Your task to perform on an android device: Open Youtube and go to the subscriptions tab Image 0: 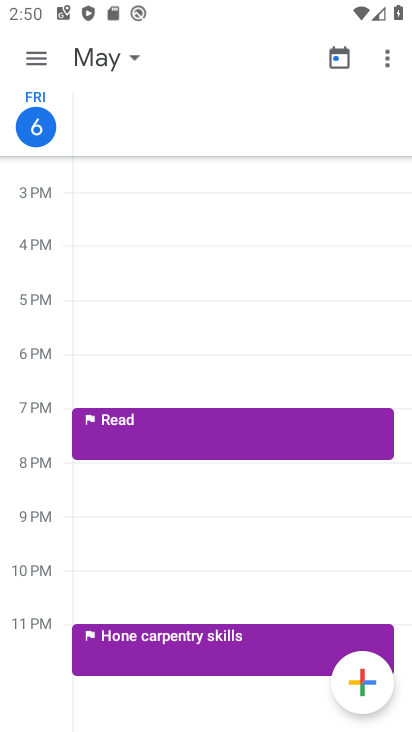
Step 0: press back button
Your task to perform on an android device: Open Youtube and go to the subscriptions tab Image 1: 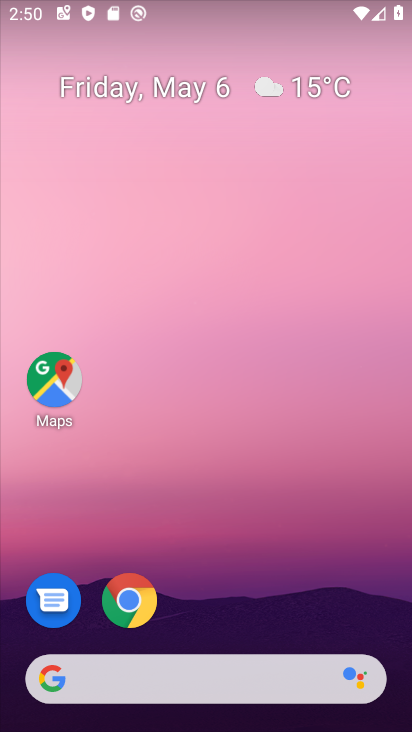
Step 1: drag from (258, 586) to (223, 10)
Your task to perform on an android device: Open Youtube and go to the subscriptions tab Image 2: 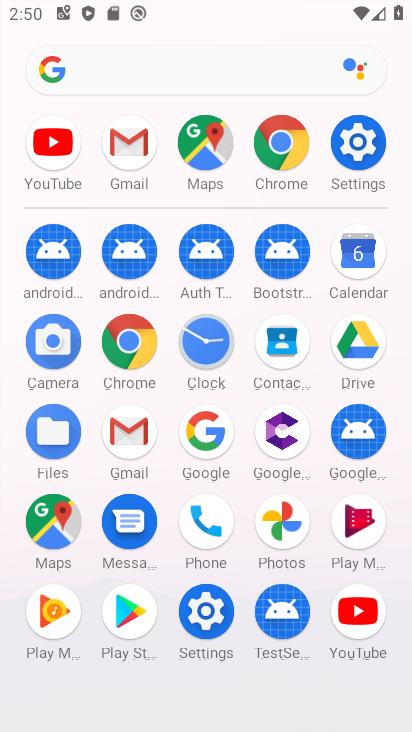
Step 2: drag from (0, 538) to (20, 278)
Your task to perform on an android device: Open Youtube and go to the subscriptions tab Image 3: 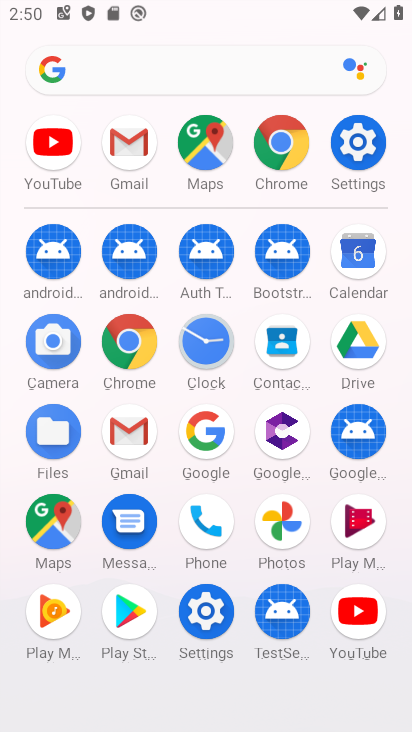
Step 3: click (356, 602)
Your task to perform on an android device: Open Youtube and go to the subscriptions tab Image 4: 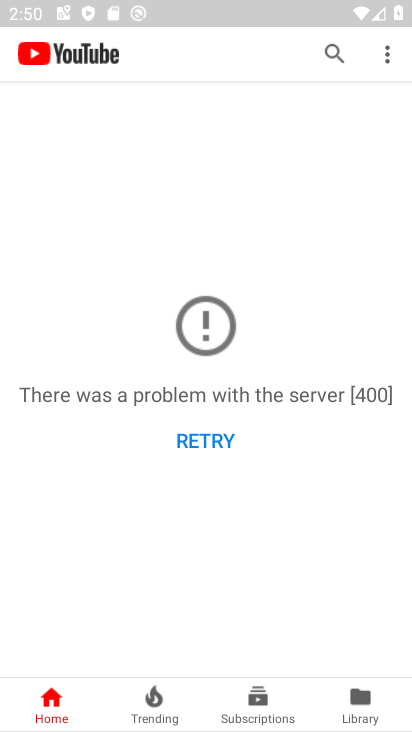
Step 4: click (259, 702)
Your task to perform on an android device: Open Youtube and go to the subscriptions tab Image 5: 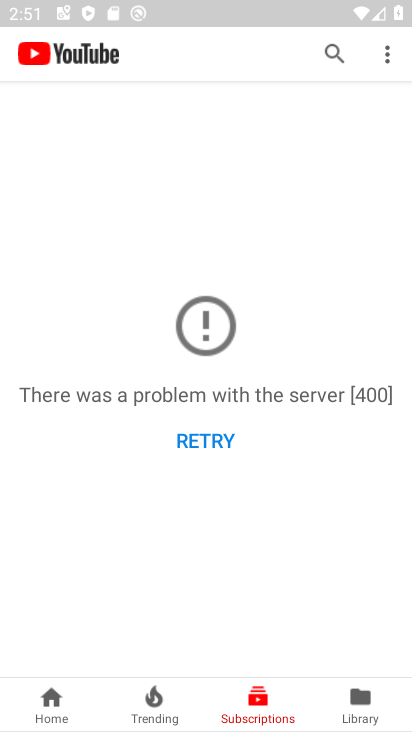
Step 5: task complete